Your task to perform on an android device: Go to internet settings Image 0: 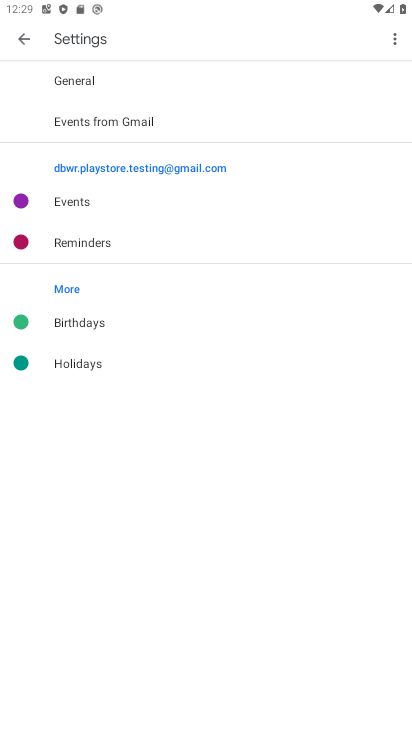
Step 0: press home button
Your task to perform on an android device: Go to internet settings Image 1: 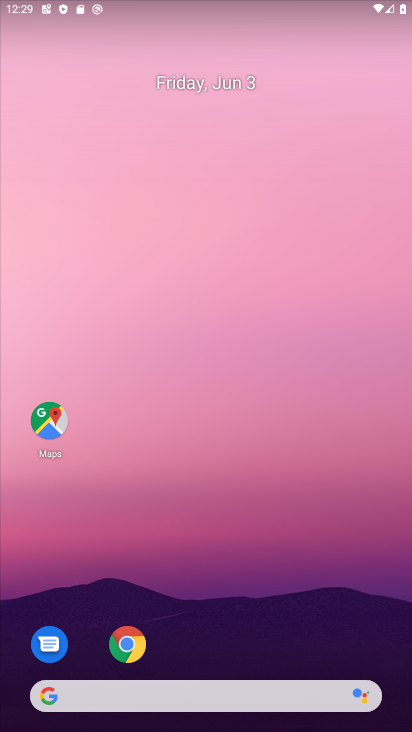
Step 1: drag from (223, 724) to (210, 65)
Your task to perform on an android device: Go to internet settings Image 2: 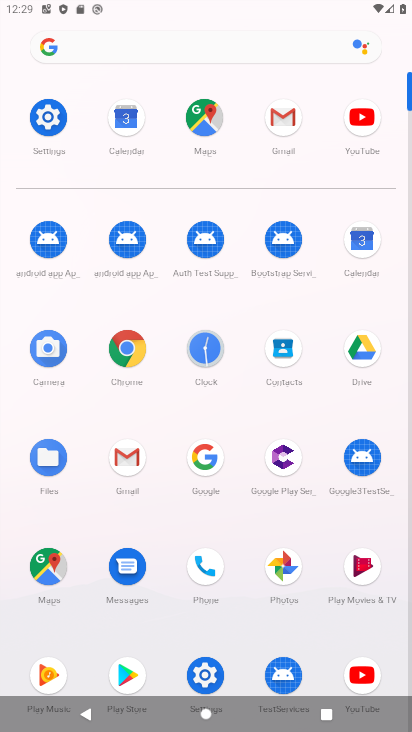
Step 2: click (48, 110)
Your task to perform on an android device: Go to internet settings Image 3: 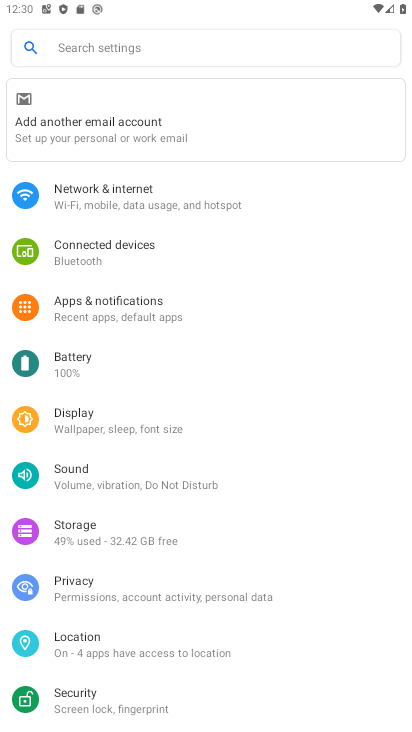
Step 3: click (114, 200)
Your task to perform on an android device: Go to internet settings Image 4: 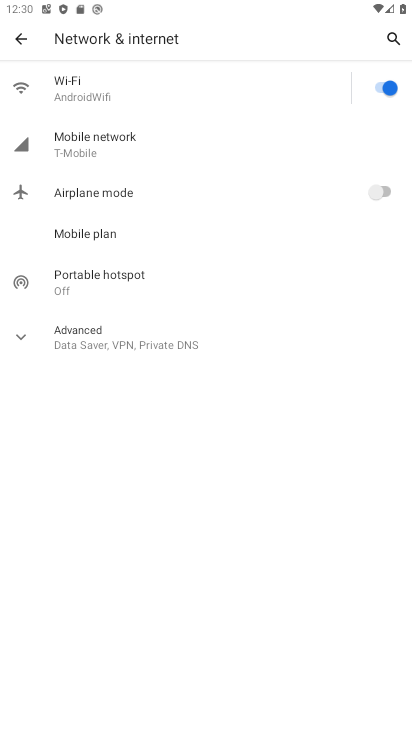
Step 4: task complete